Your task to perform on an android device: visit the assistant section in the google photos Image 0: 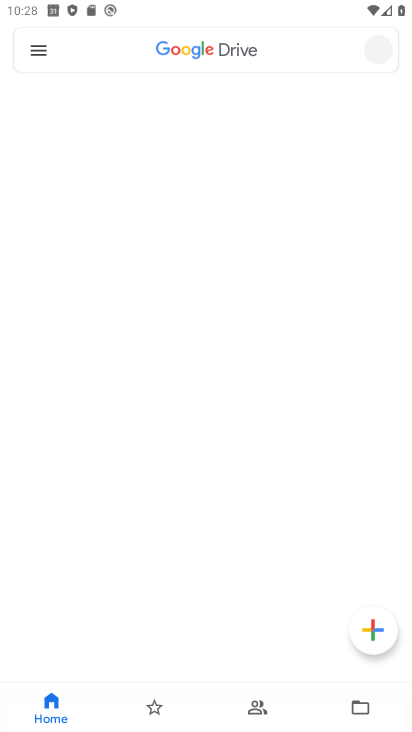
Step 0: drag from (207, 620) to (210, 257)
Your task to perform on an android device: visit the assistant section in the google photos Image 1: 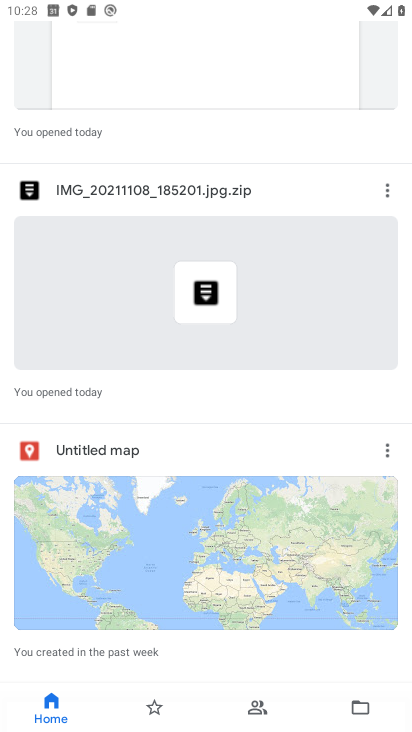
Step 1: press home button
Your task to perform on an android device: visit the assistant section in the google photos Image 2: 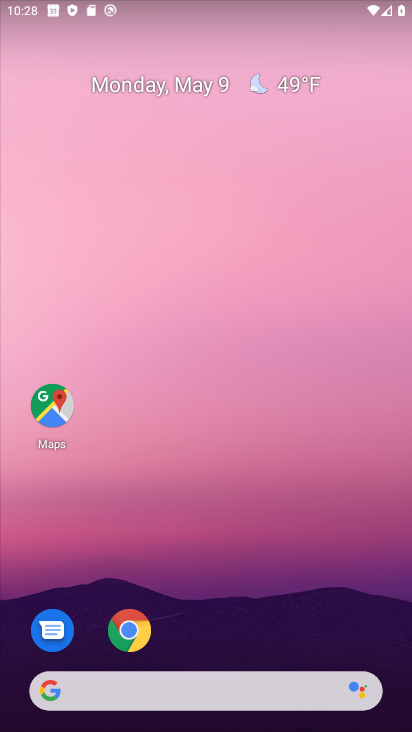
Step 2: drag from (224, 549) to (234, 262)
Your task to perform on an android device: visit the assistant section in the google photos Image 3: 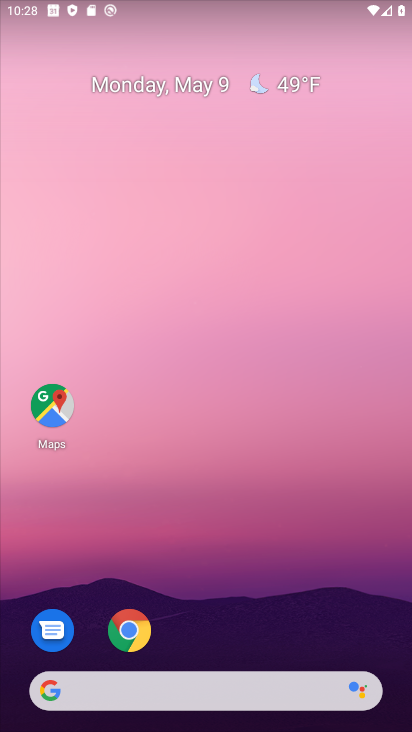
Step 3: drag from (219, 646) to (221, 210)
Your task to perform on an android device: visit the assistant section in the google photos Image 4: 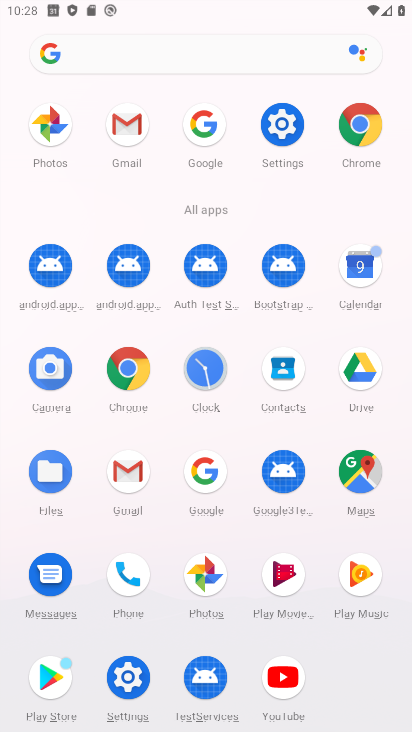
Step 4: click (65, 142)
Your task to perform on an android device: visit the assistant section in the google photos Image 5: 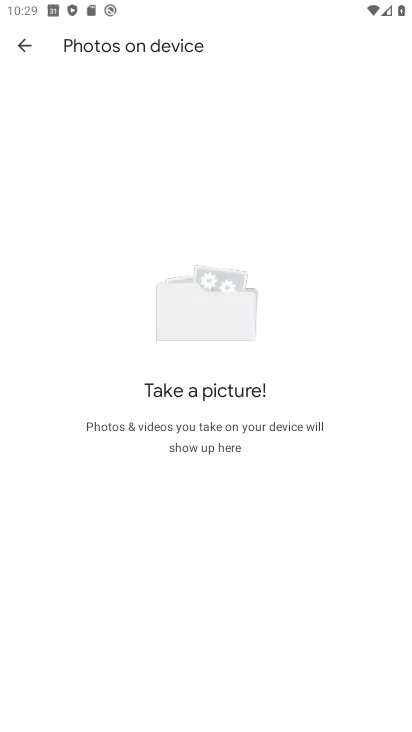
Step 5: click (18, 45)
Your task to perform on an android device: visit the assistant section in the google photos Image 6: 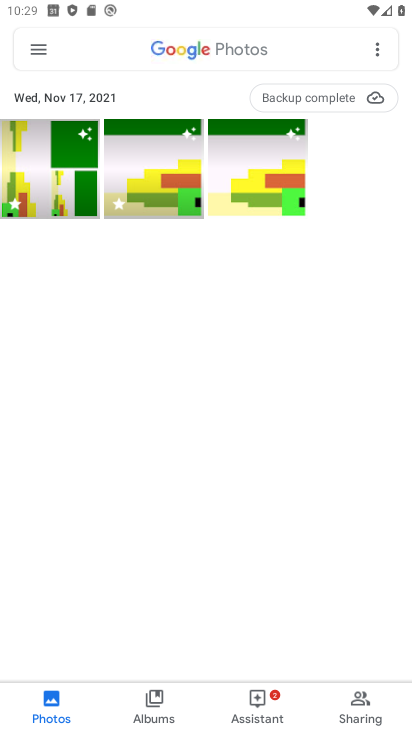
Step 6: click (253, 681)
Your task to perform on an android device: visit the assistant section in the google photos Image 7: 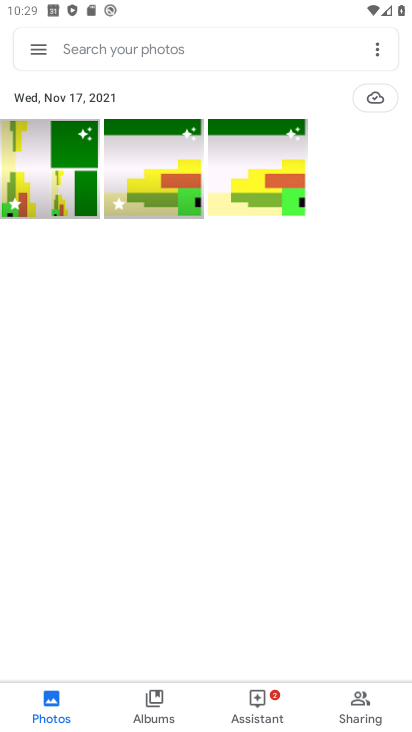
Step 7: click (267, 689)
Your task to perform on an android device: visit the assistant section in the google photos Image 8: 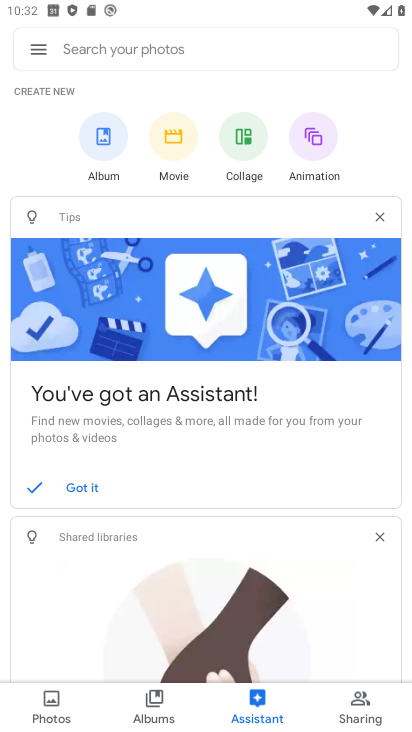
Step 8: task complete